Your task to perform on an android device: Open battery settings Image 0: 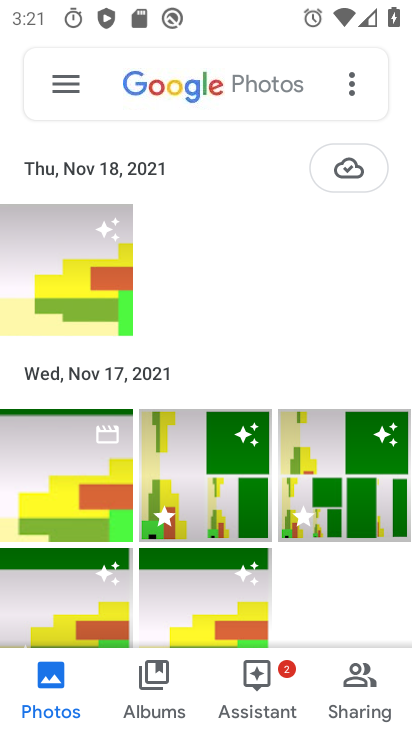
Step 0: press home button
Your task to perform on an android device: Open battery settings Image 1: 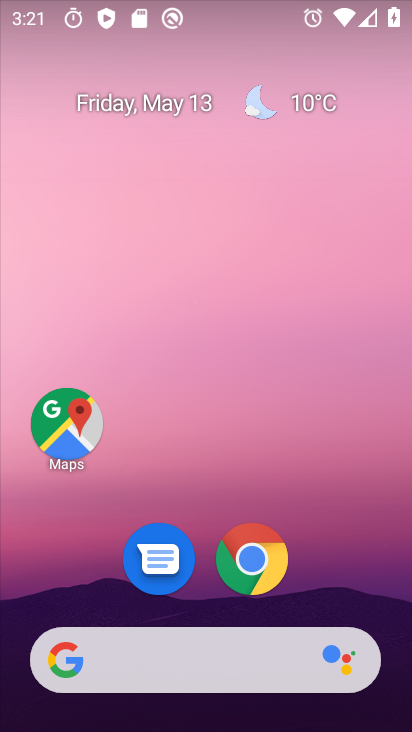
Step 1: drag from (224, 604) to (323, 177)
Your task to perform on an android device: Open battery settings Image 2: 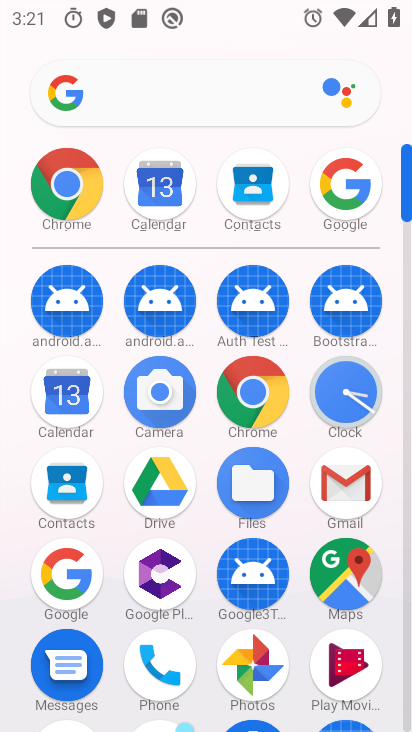
Step 2: drag from (290, 579) to (310, 261)
Your task to perform on an android device: Open battery settings Image 3: 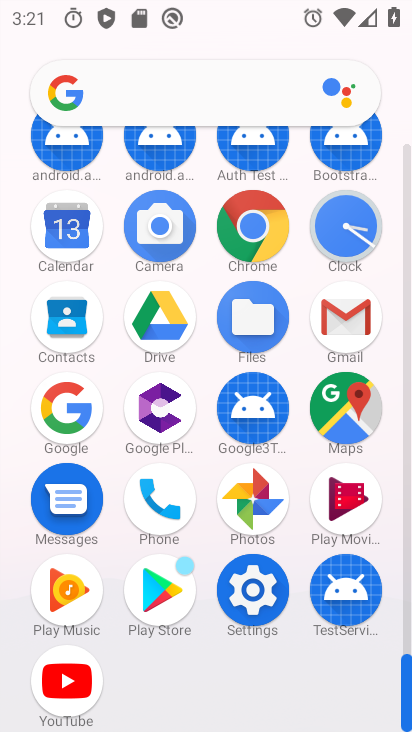
Step 3: click (261, 553)
Your task to perform on an android device: Open battery settings Image 4: 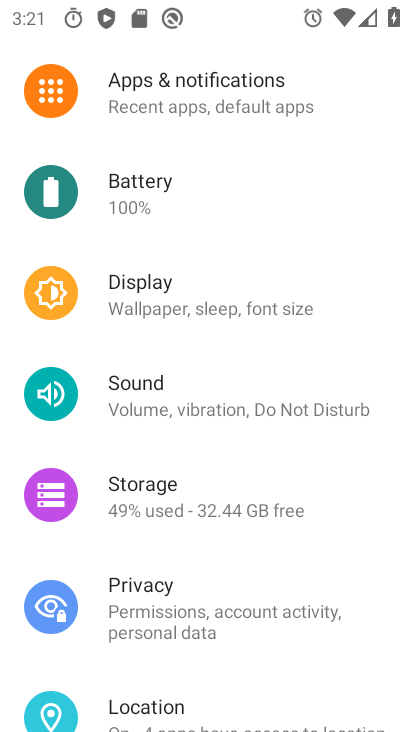
Step 4: click (211, 202)
Your task to perform on an android device: Open battery settings Image 5: 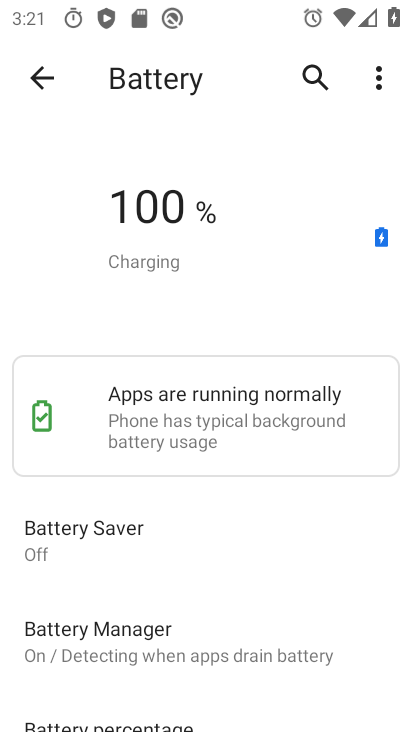
Step 5: task complete